Your task to perform on an android device: turn off wifi Image 0: 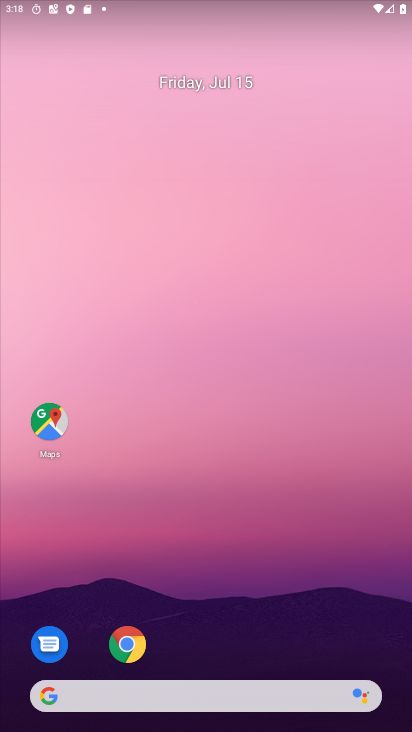
Step 0: drag from (55, 5) to (252, 516)
Your task to perform on an android device: turn off wifi Image 1: 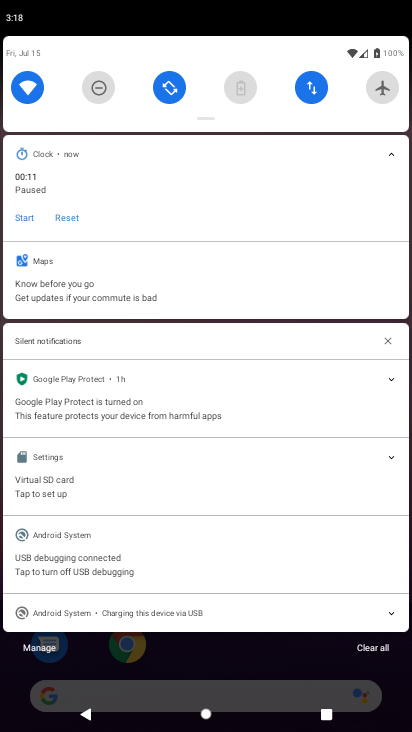
Step 1: click (33, 92)
Your task to perform on an android device: turn off wifi Image 2: 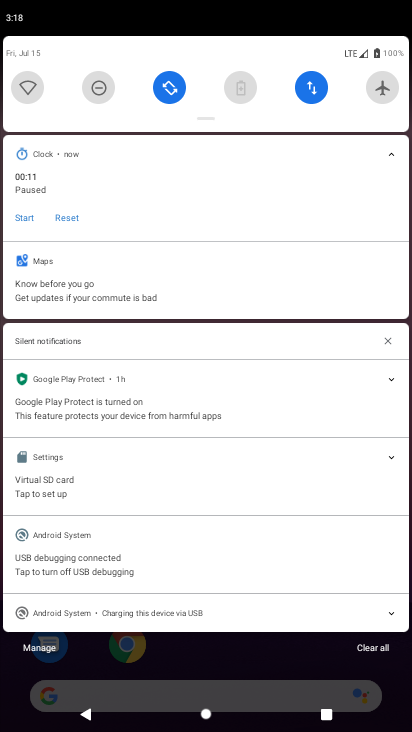
Step 2: task complete